Your task to perform on an android device: Turn on the flashlight Image 0: 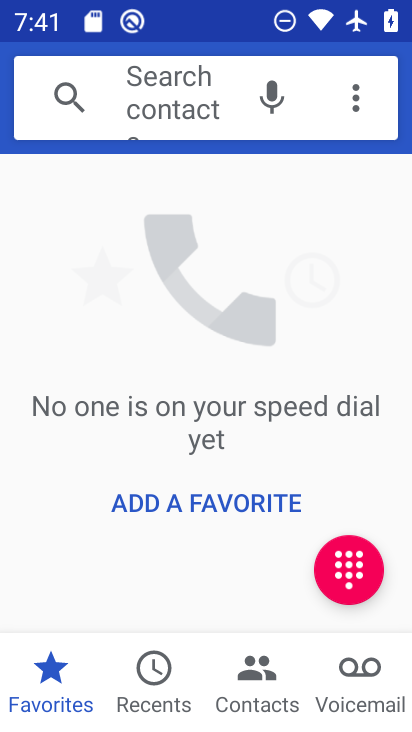
Step 0: press home button
Your task to perform on an android device: Turn on the flashlight Image 1: 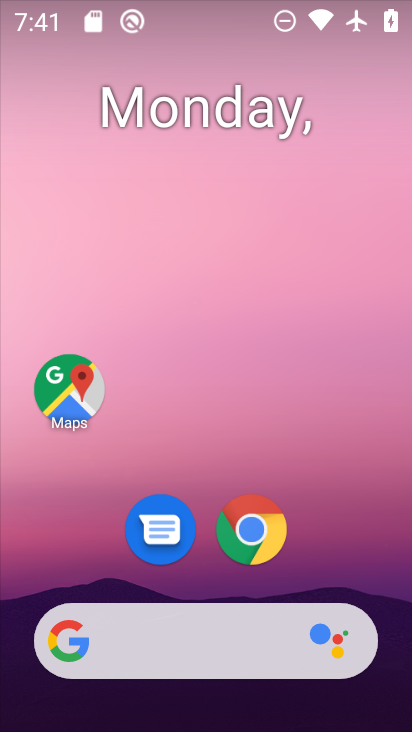
Step 1: drag from (173, 439) to (152, 46)
Your task to perform on an android device: Turn on the flashlight Image 2: 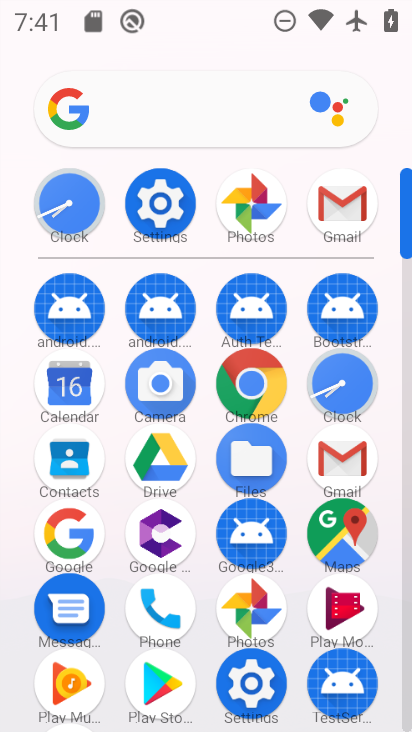
Step 2: click (150, 201)
Your task to perform on an android device: Turn on the flashlight Image 3: 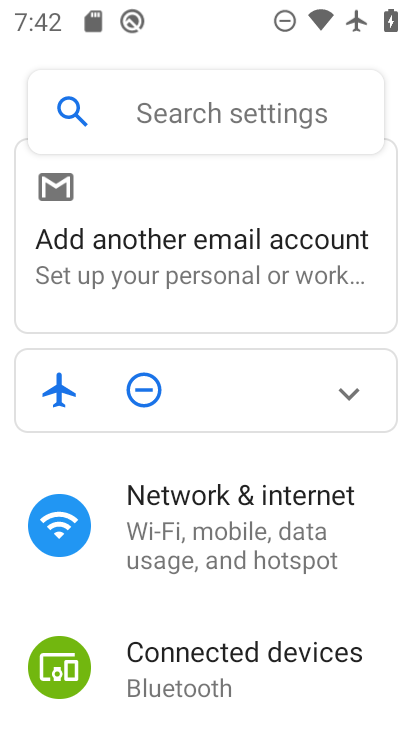
Step 3: drag from (323, 606) to (291, 393)
Your task to perform on an android device: Turn on the flashlight Image 4: 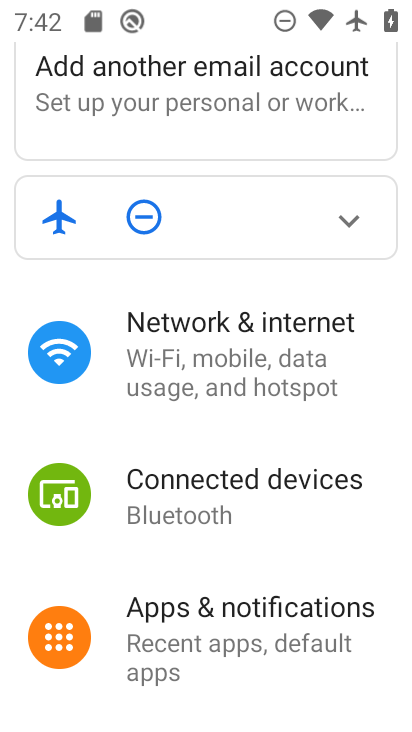
Step 4: drag from (250, 527) to (233, 327)
Your task to perform on an android device: Turn on the flashlight Image 5: 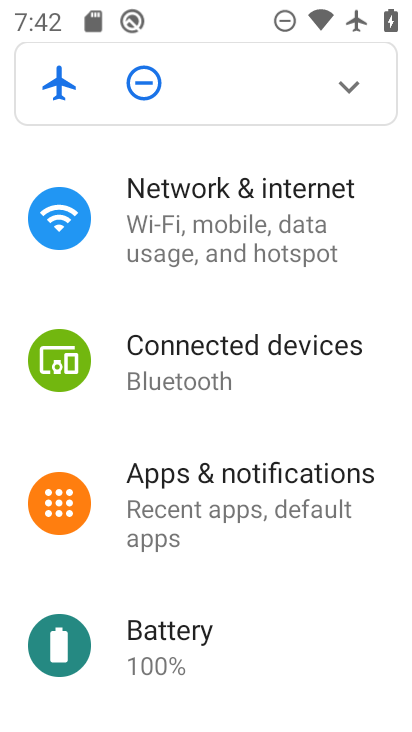
Step 5: click (203, 485)
Your task to perform on an android device: Turn on the flashlight Image 6: 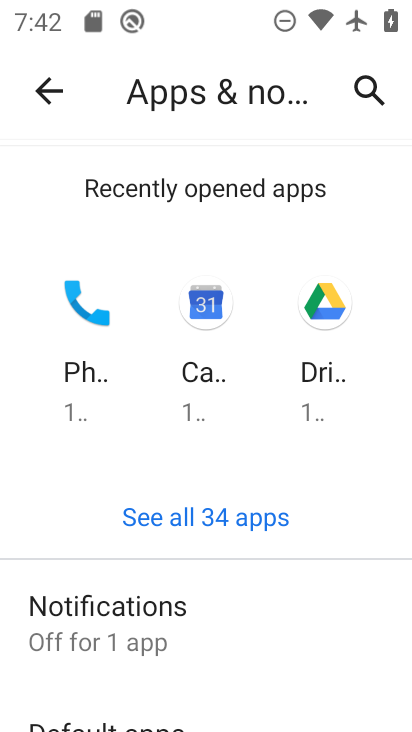
Step 6: task complete